Your task to perform on an android device: turn on showing notifications on the lock screen Image 0: 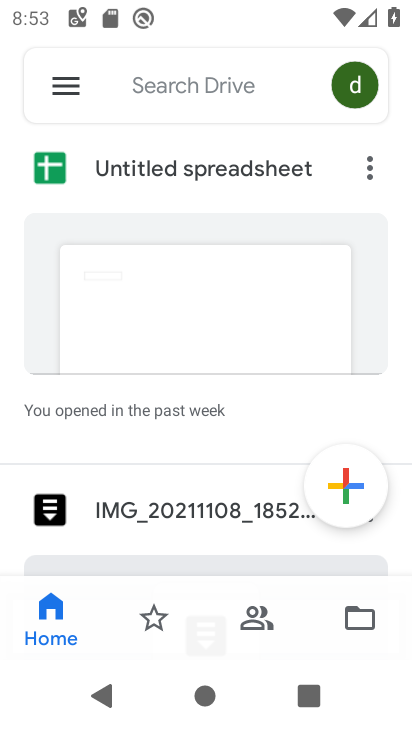
Step 0: press home button
Your task to perform on an android device: turn on showing notifications on the lock screen Image 1: 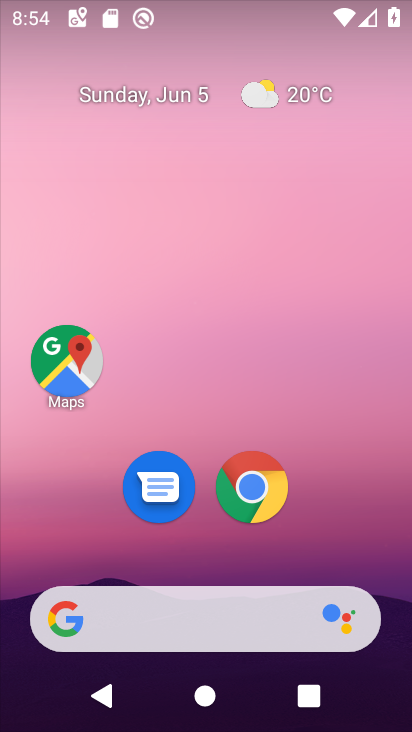
Step 1: drag from (279, 554) to (259, 181)
Your task to perform on an android device: turn on showing notifications on the lock screen Image 2: 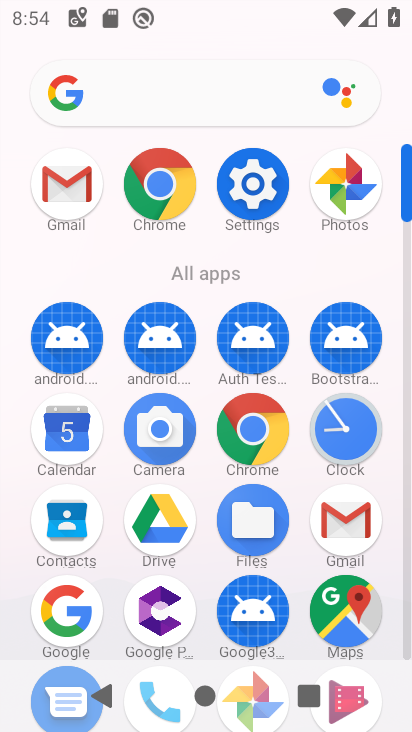
Step 2: click (252, 181)
Your task to perform on an android device: turn on showing notifications on the lock screen Image 3: 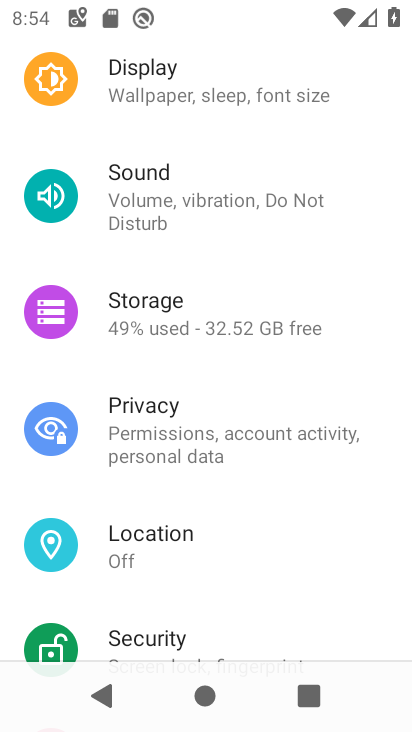
Step 3: drag from (181, 87) to (211, 621)
Your task to perform on an android device: turn on showing notifications on the lock screen Image 4: 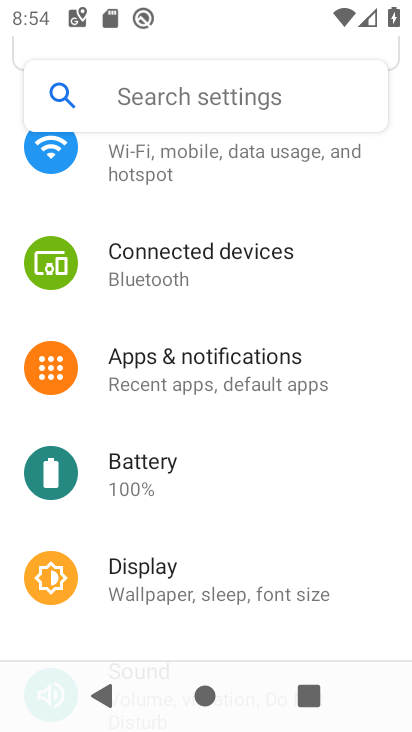
Step 4: click (212, 362)
Your task to perform on an android device: turn on showing notifications on the lock screen Image 5: 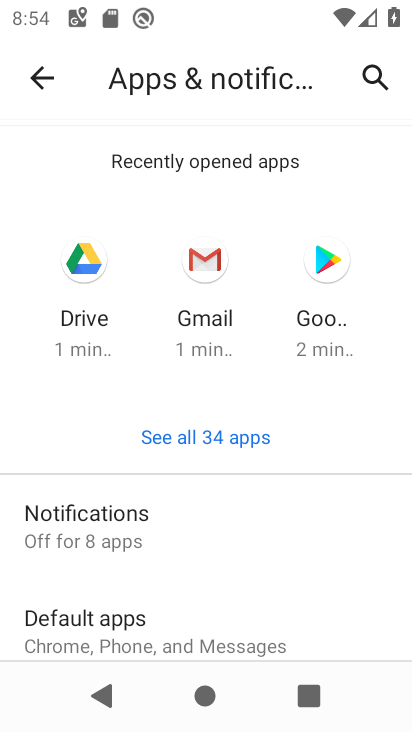
Step 5: click (106, 522)
Your task to perform on an android device: turn on showing notifications on the lock screen Image 6: 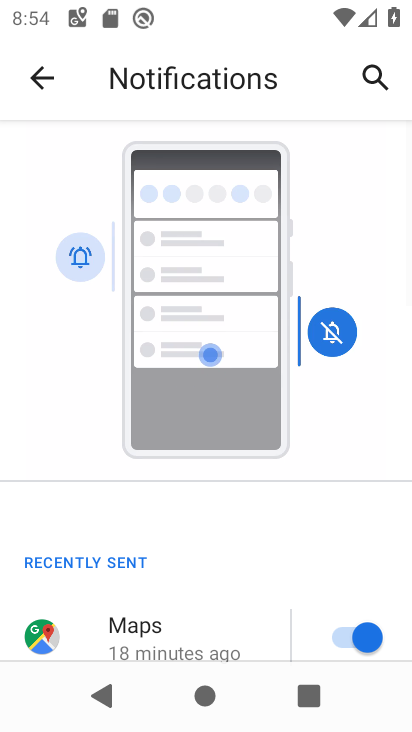
Step 6: drag from (215, 591) to (266, 191)
Your task to perform on an android device: turn on showing notifications on the lock screen Image 7: 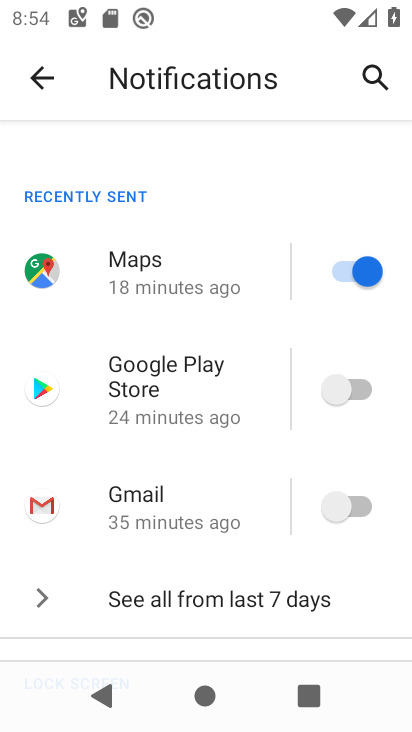
Step 7: click (47, 77)
Your task to perform on an android device: turn on showing notifications on the lock screen Image 8: 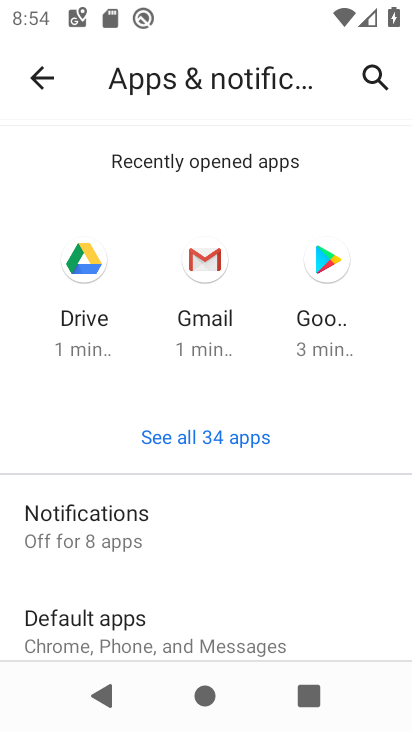
Step 8: click (117, 525)
Your task to perform on an android device: turn on showing notifications on the lock screen Image 9: 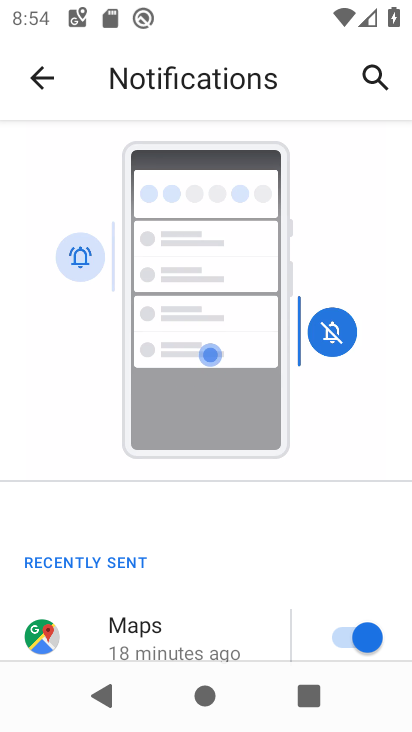
Step 9: drag from (198, 583) to (231, 220)
Your task to perform on an android device: turn on showing notifications on the lock screen Image 10: 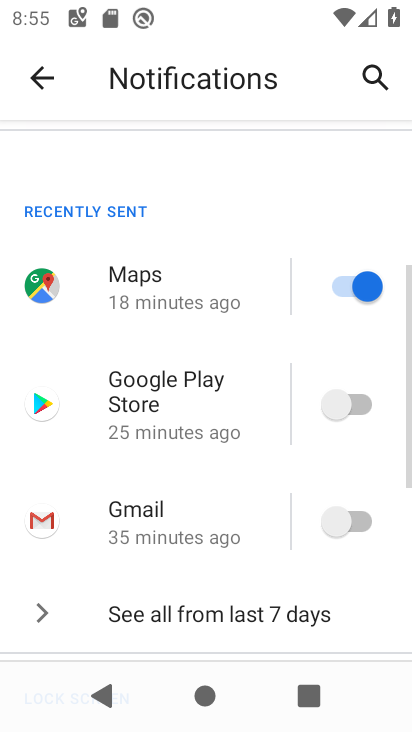
Step 10: drag from (180, 595) to (246, 166)
Your task to perform on an android device: turn on showing notifications on the lock screen Image 11: 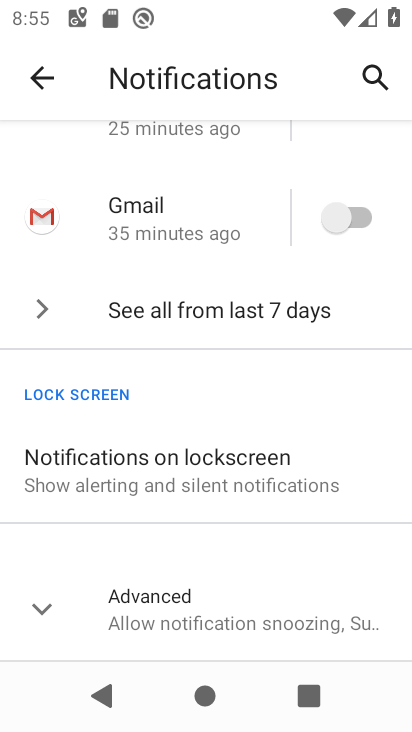
Step 11: drag from (167, 622) to (181, 514)
Your task to perform on an android device: turn on showing notifications on the lock screen Image 12: 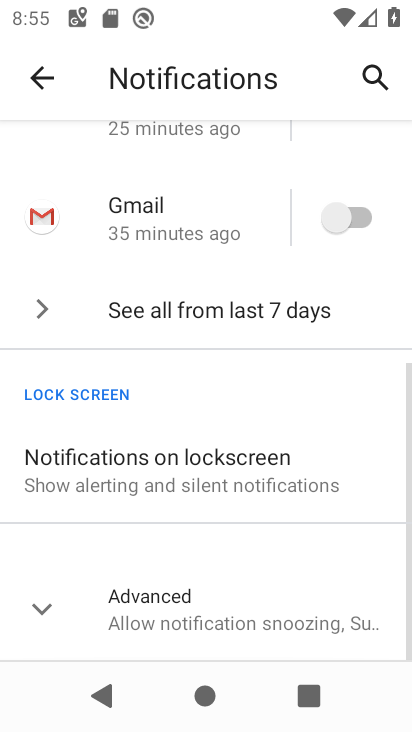
Step 12: click (178, 455)
Your task to perform on an android device: turn on showing notifications on the lock screen Image 13: 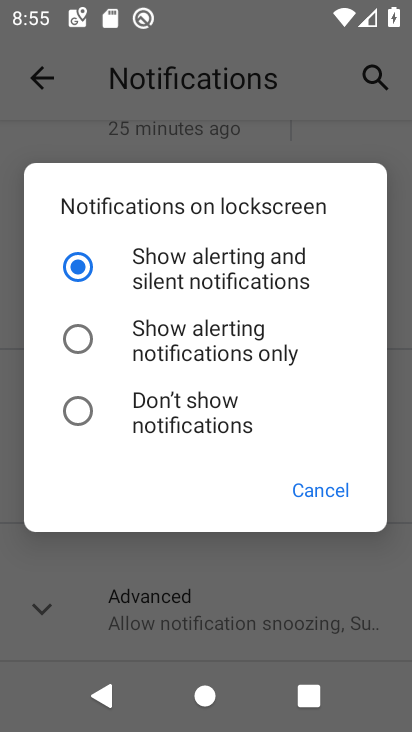
Step 13: task complete